Your task to perform on an android device: change alarm snooze length Image 0: 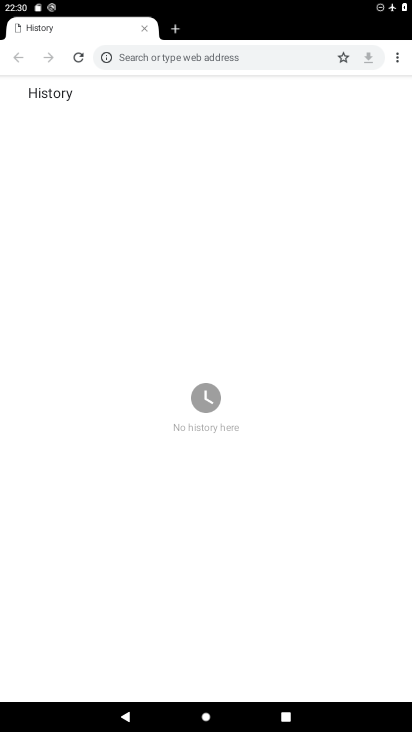
Step 0: press home button
Your task to perform on an android device: change alarm snooze length Image 1: 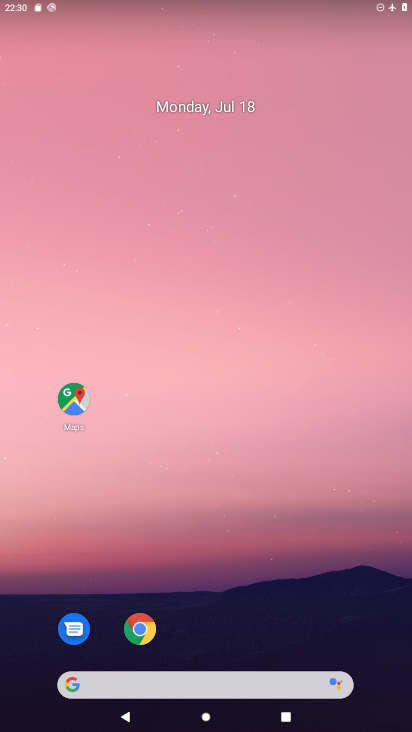
Step 1: drag from (239, 510) to (182, 47)
Your task to perform on an android device: change alarm snooze length Image 2: 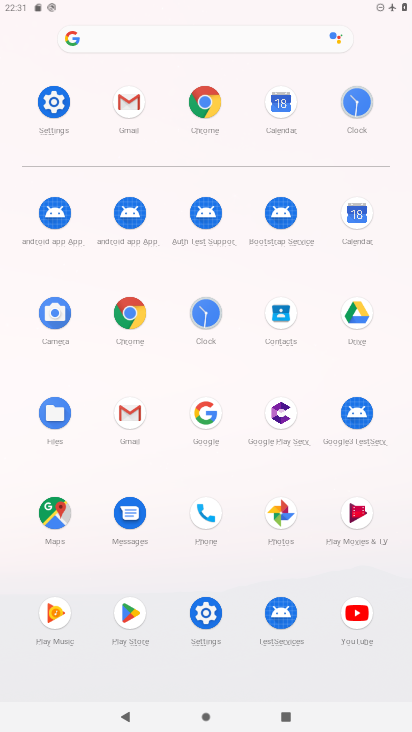
Step 2: click (366, 96)
Your task to perform on an android device: change alarm snooze length Image 3: 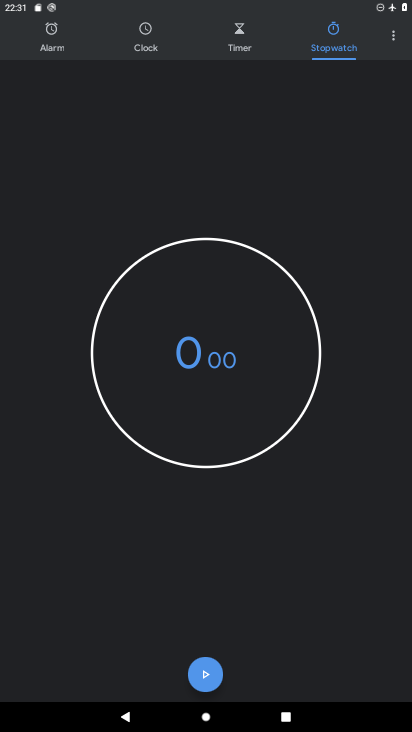
Step 3: click (393, 41)
Your task to perform on an android device: change alarm snooze length Image 4: 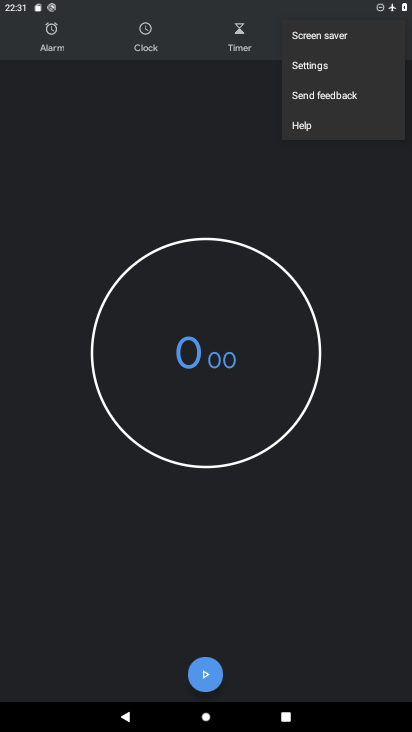
Step 4: click (320, 71)
Your task to perform on an android device: change alarm snooze length Image 5: 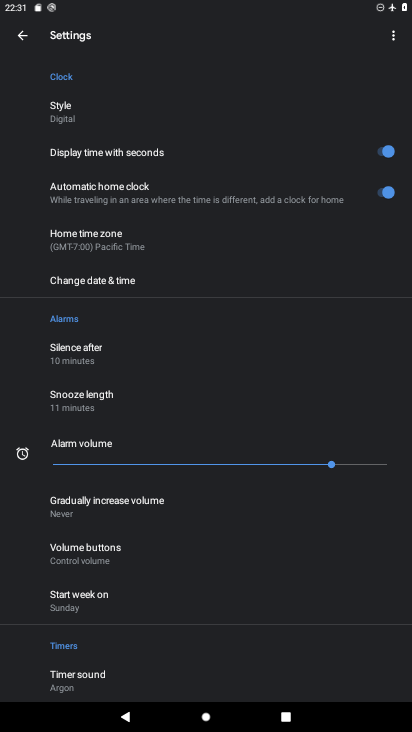
Step 5: click (77, 402)
Your task to perform on an android device: change alarm snooze length Image 6: 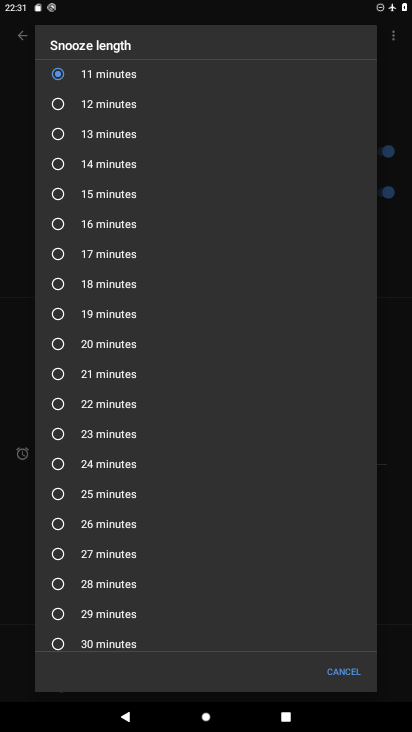
Step 6: click (107, 100)
Your task to perform on an android device: change alarm snooze length Image 7: 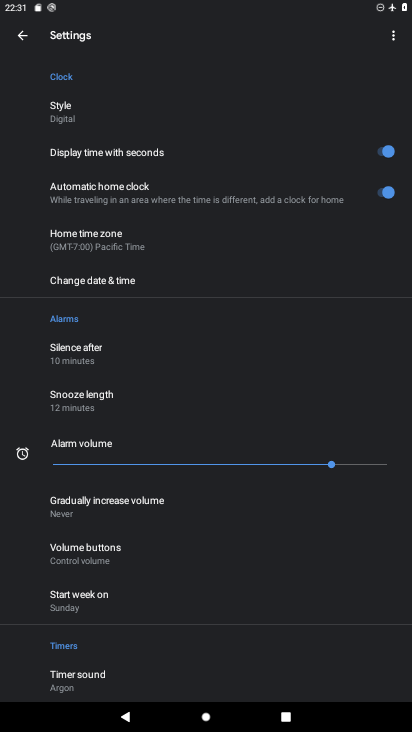
Step 7: task complete